Your task to perform on an android device: Open calendar and show me the third week of next month Image 0: 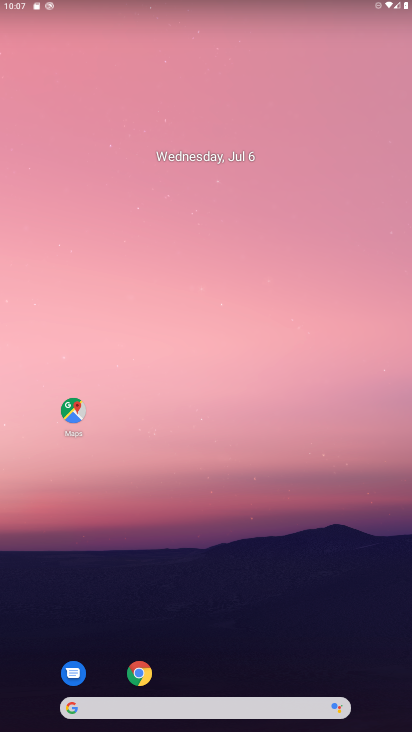
Step 0: click (198, 151)
Your task to perform on an android device: Open calendar and show me the third week of next month Image 1: 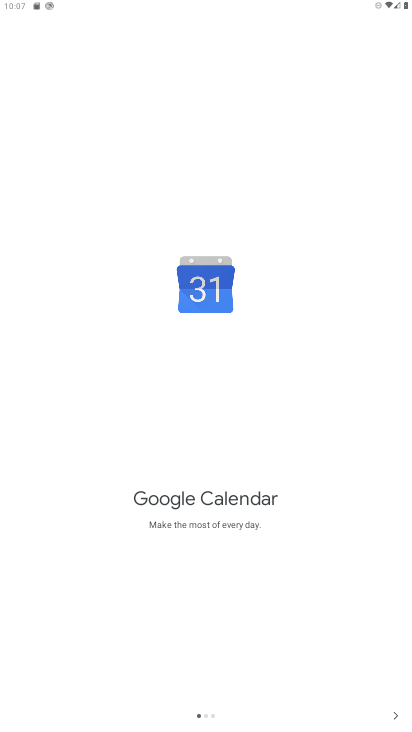
Step 1: click (389, 716)
Your task to perform on an android device: Open calendar and show me the third week of next month Image 2: 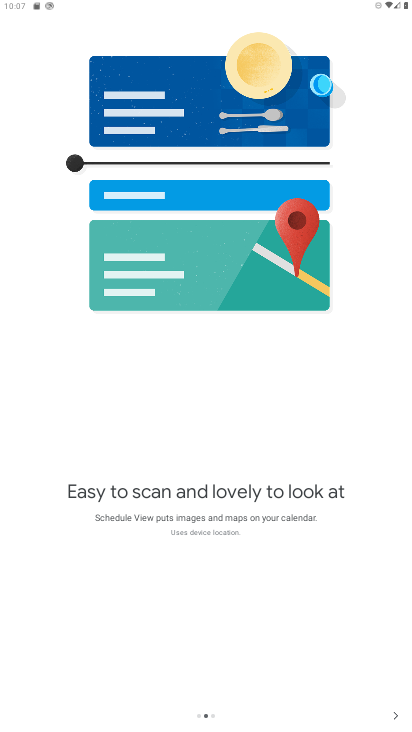
Step 2: click (389, 716)
Your task to perform on an android device: Open calendar and show me the third week of next month Image 3: 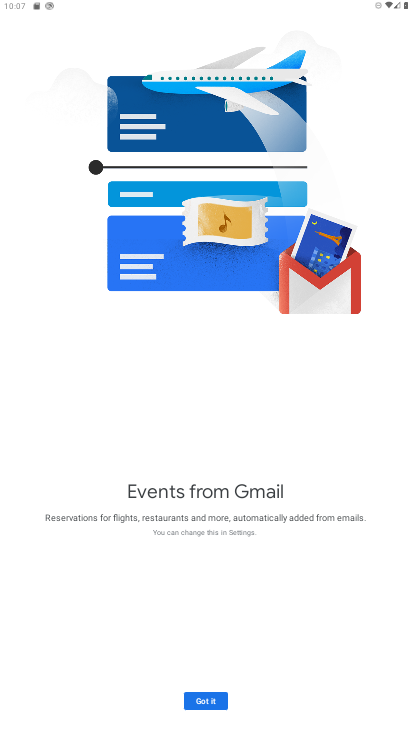
Step 3: click (208, 705)
Your task to perform on an android device: Open calendar and show me the third week of next month Image 4: 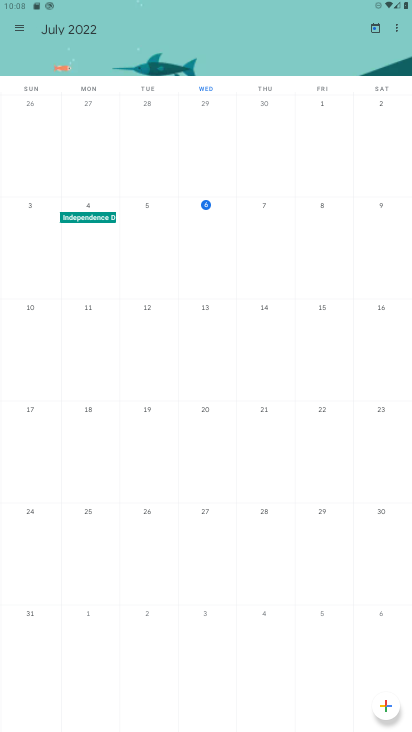
Step 4: click (80, 30)
Your task to perform on an android device: Open calendar and show me the third week of next month Image 5: 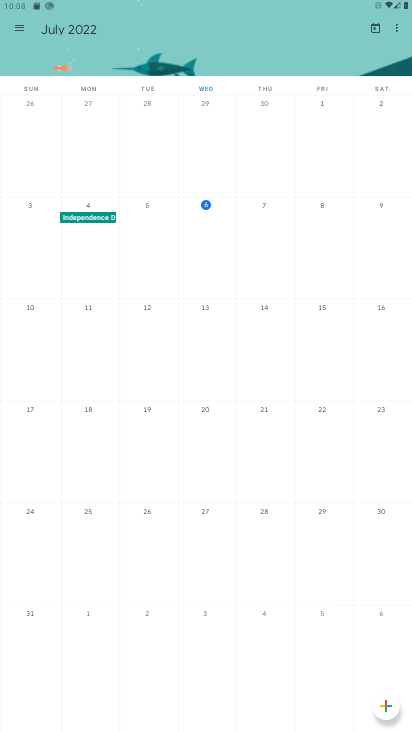
Step 5: click (80, 30)
Your task to perform on an android device: Open calendar and show me the third week of next month Image 6: 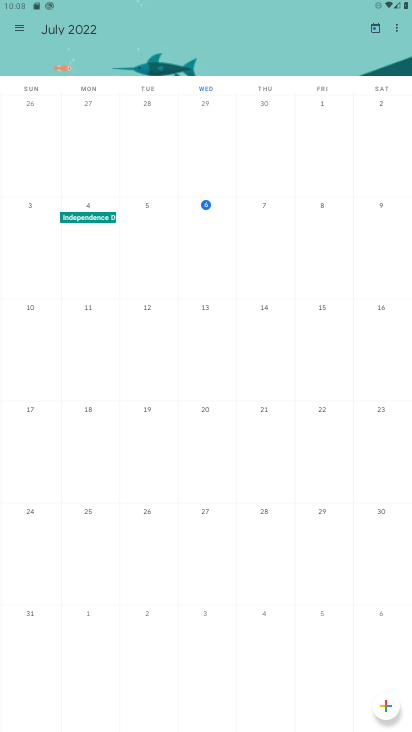
Step 6: click (102, 26)
Your task to perform on an android device: Open calendar and show me the third week of next month Image 7: 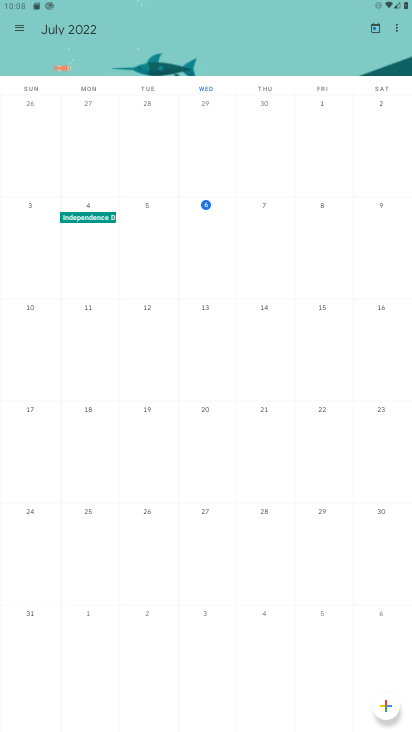
Step 7: click (71, 31)
Your task to perform on an android device: Open calendar and show me the third week of next month Image 8: 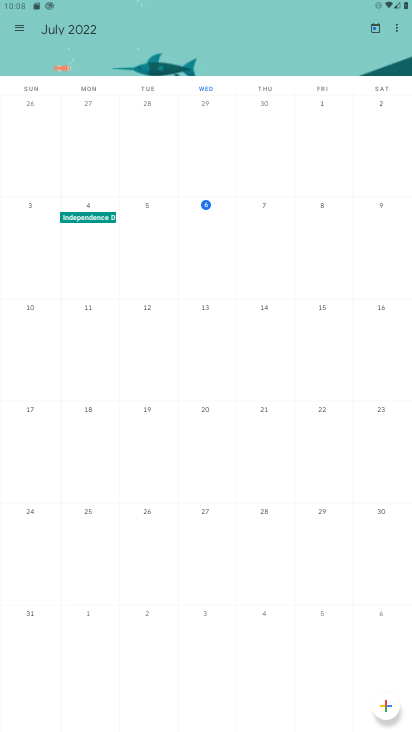
Step 8: click (71, 31)
Your task to perform on an android device: Open calendar and show me the third week of next month Image 9: 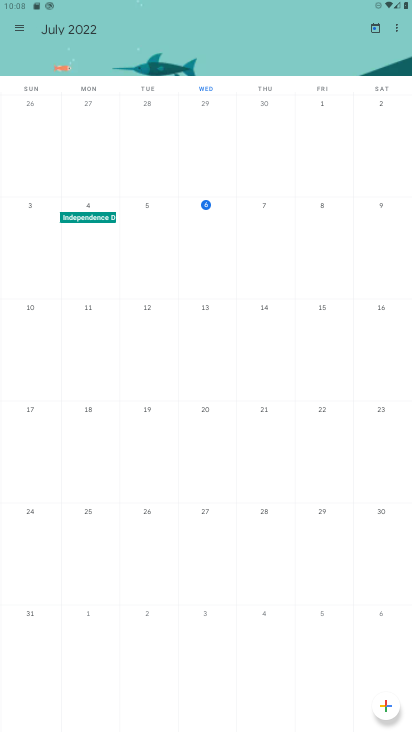
Step 9: click (71, 31)
Your task to perform on an android device: Open calendar and show me the third week of next month Image 10: 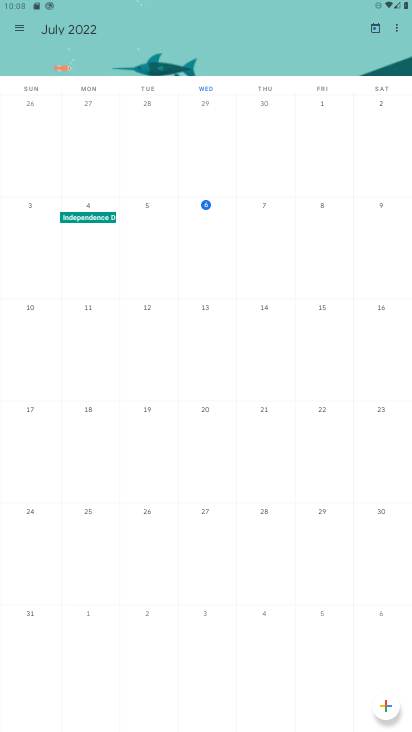
Step 10: click (90, 36)
Your task to perform on an android device: Open calendar and show me the third week of next month Image 11: 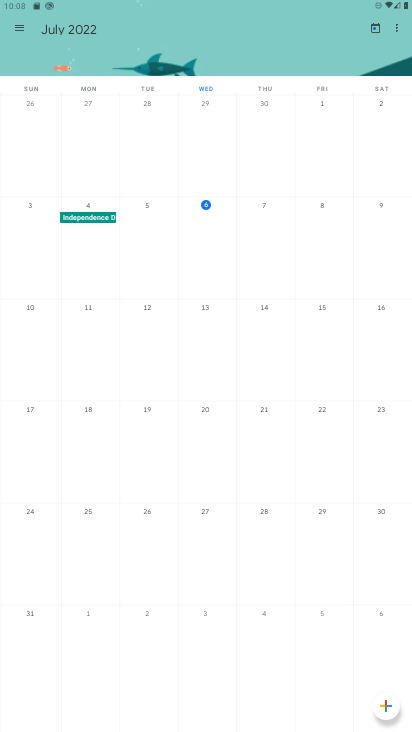
Step 11: click (99, 36)
Your task to perform on an android device: Open calendar and show me the third week of next month Image 12: 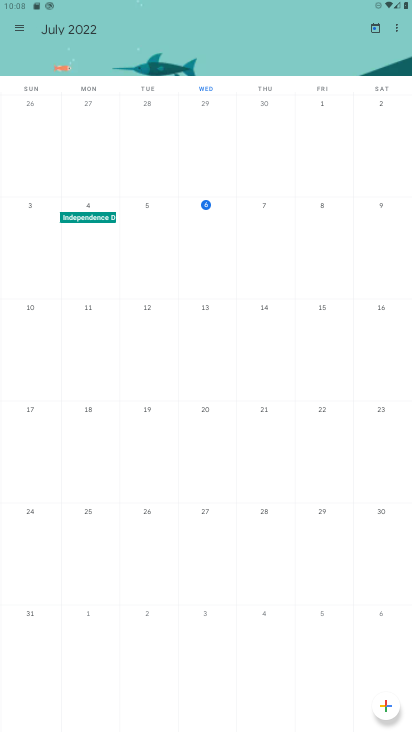
Step 12: click (372, 29)
Your task to perform on an android device: Open calendar and show me the third week of next month Image 13: 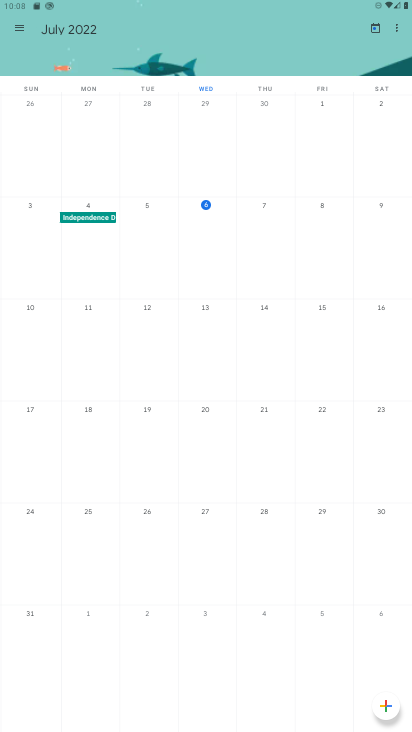
Step 13: click (371, 29)
Your task to perform on an android device: Open calendar and show me the third week of next month Image 14: 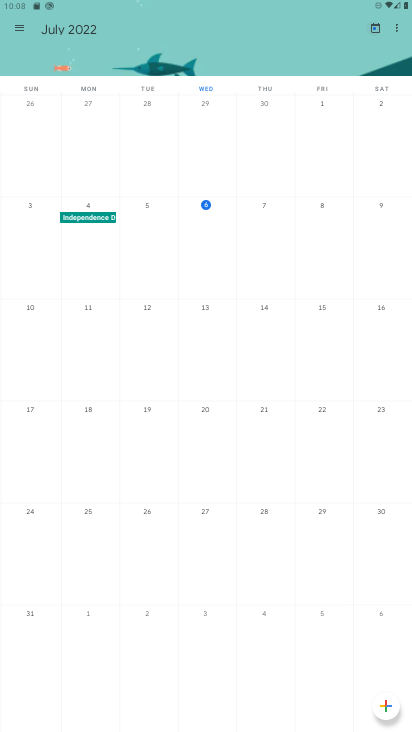
Step 14: click (371, 29)
Your task to perform on an android device: Open calendar and show me the third week of next month Image 15: 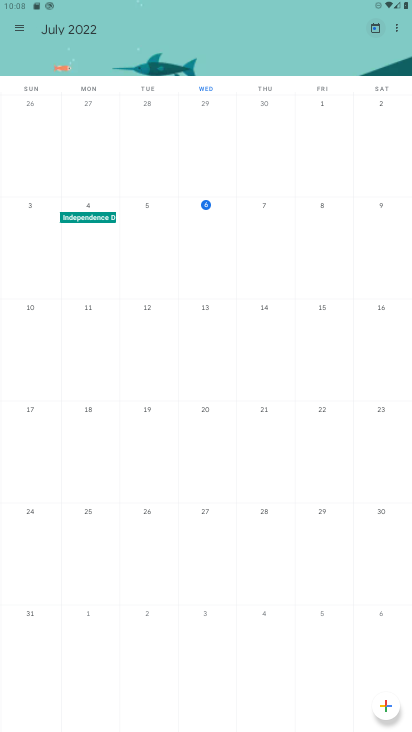
Step 15: click (371, 29)
Your task to perform on an android device: Open calendar and show me the third week of next month Image 16: 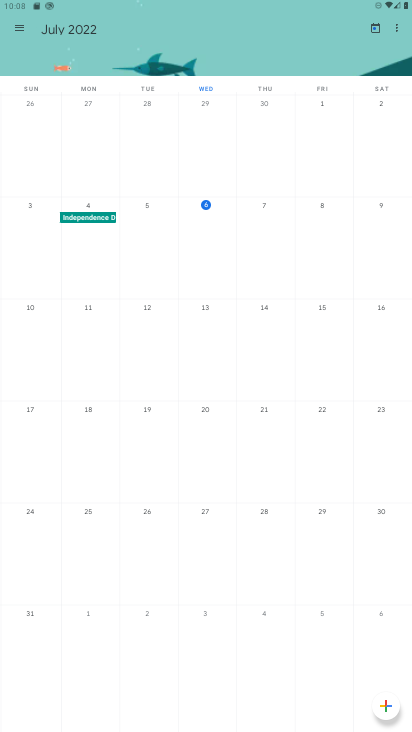
Step 16: click (186, 371)
Your task to perform on an android device: Open calendar and show me the third week of next month Image 17: 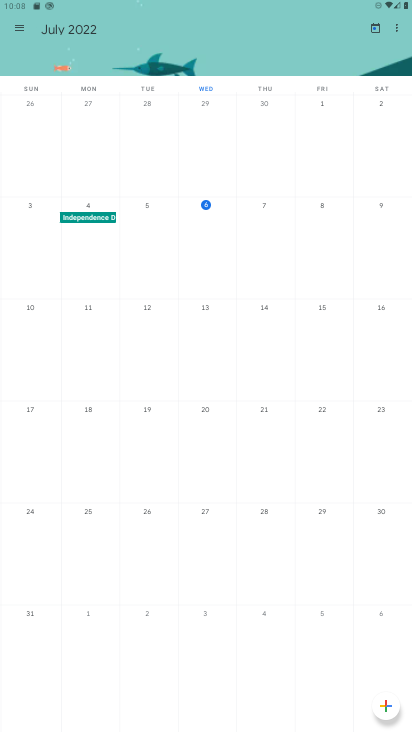
Step 17: click (186, 371)
Your task to perform on an android device: Open calendar and show me the third week of next month Image 18: 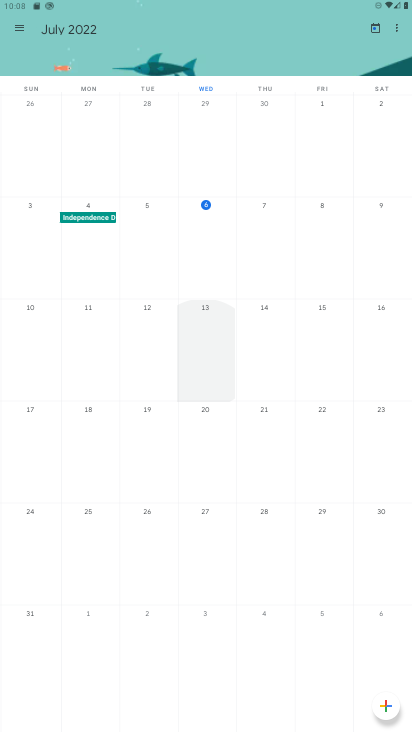
Step 18: click (186, 371)
Your task to perform on an android device: Open calendar and show me the third week of next month Image 19: 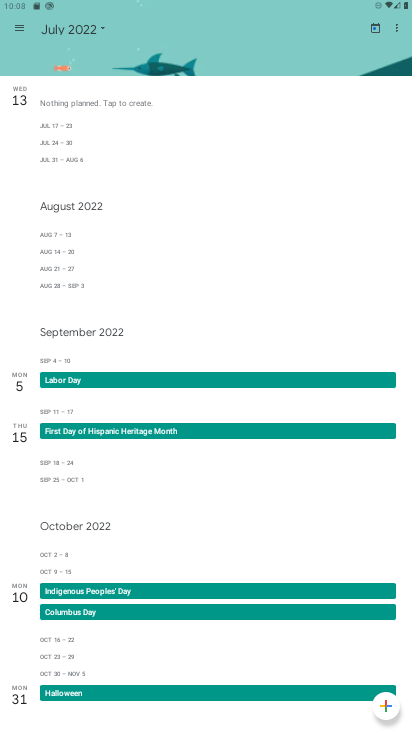
Step 19: click (101, 27)
Your task to perform on an android device: Open calendar and show me the third week of next month Image 20: 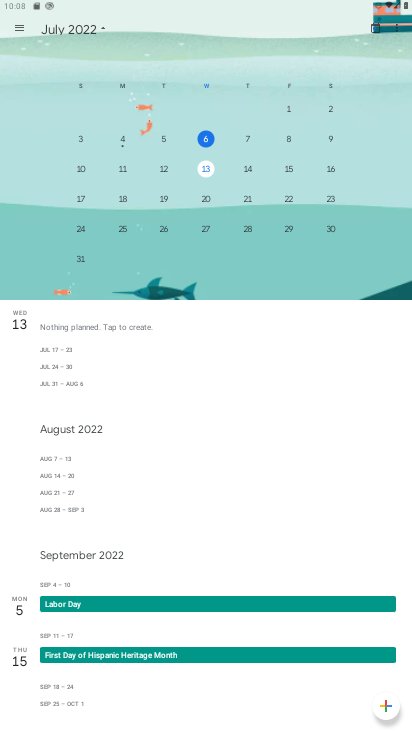
Step 20: click (101, 27)
Your task to perform on an android device: Open calendar and show me the third week of next month Image 21: 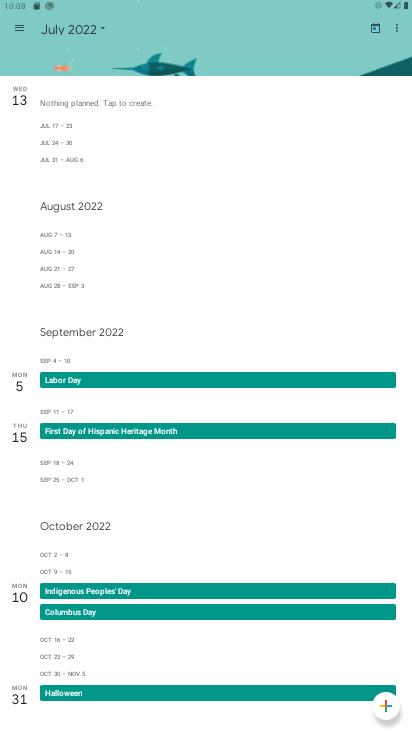
Step 21: click (101, 27)
Your task to perform on an android device: Open calendar and show me the third week of next month Image 22: 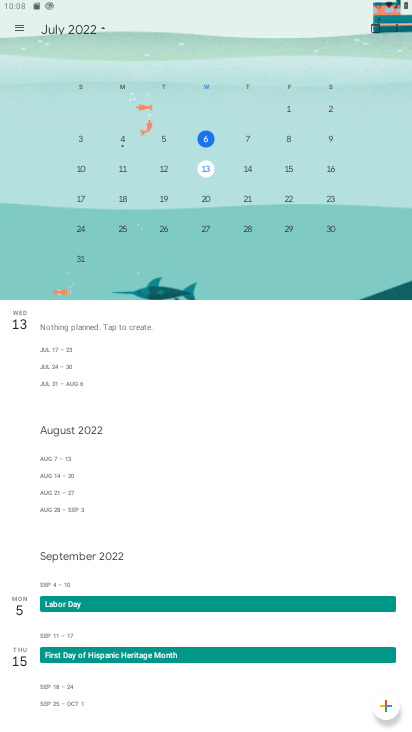
Step 22: drag from (311, 274) to (12, 273)
Your task to perform on an android device: Open calendar and show me the third week of next month Image 23: 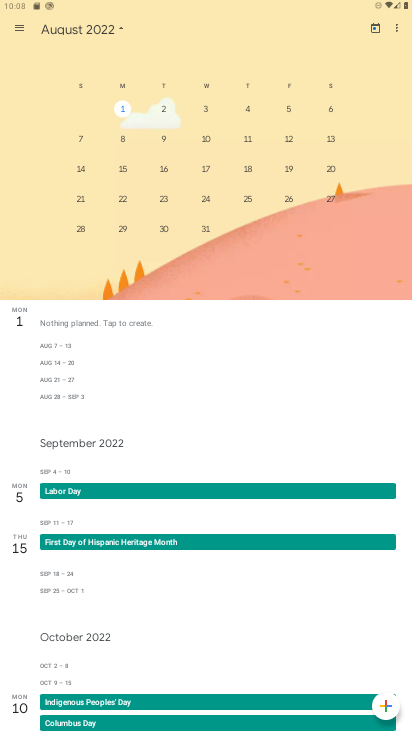
Step 23: click (125, 172)
Your task to perform on an android device: Open calendar and show me the third week of next month Image 24: 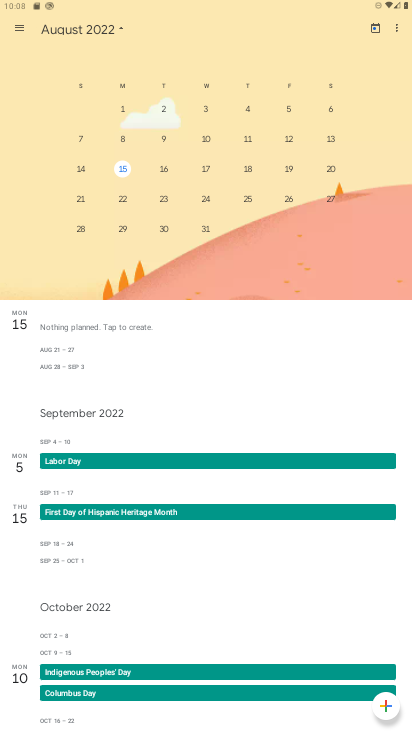
Step 24: task complete